Your task to perform on an android device: check out phone information Image 0: 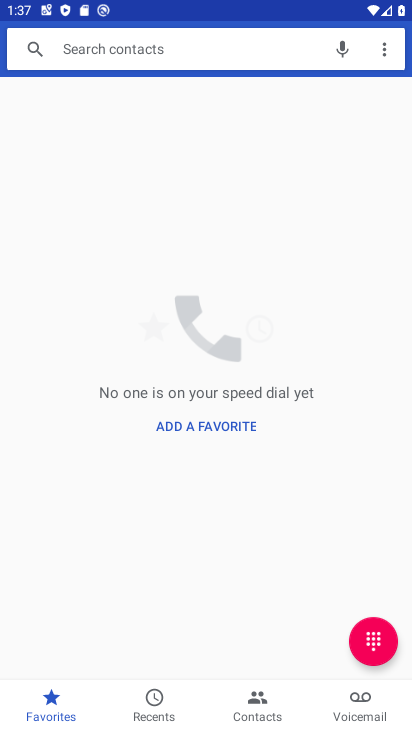
Step 0: press home button
Your task to perform on an android device: check out phone information Image 1: 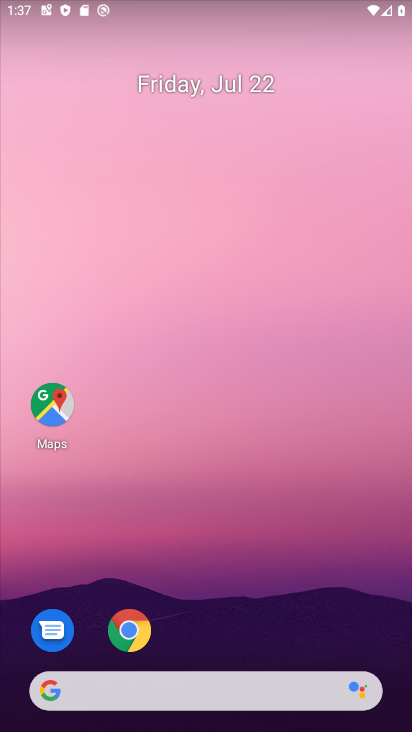
Step 1: drag from (191, 616) to (167, 30)
Your task to perform on an android device: check out phone information Image 2: 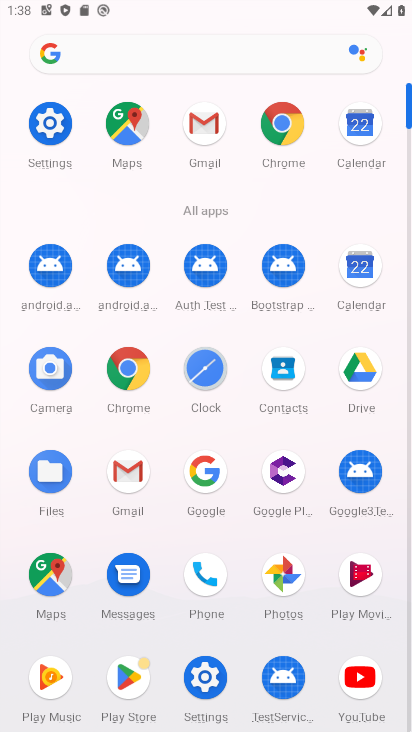
Step 2: click (211, 668)
Your task to perform on an android device: check out phone information Image 3: 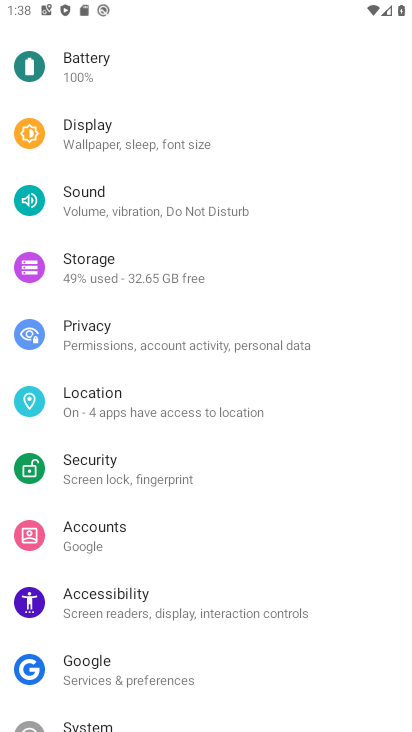
Step 3: drag from (211, 668) to (215, 160)
Your task to perform on an android device: check out phone information Image 4: 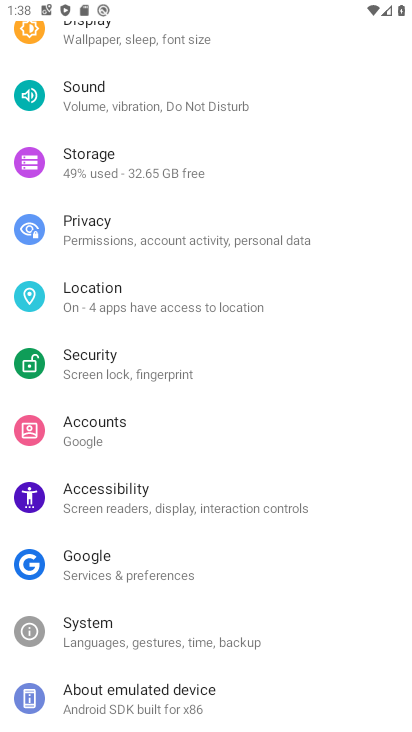
Step 4: click (104, 680)
Your task to perform on an android device: check out phone information Image 5: 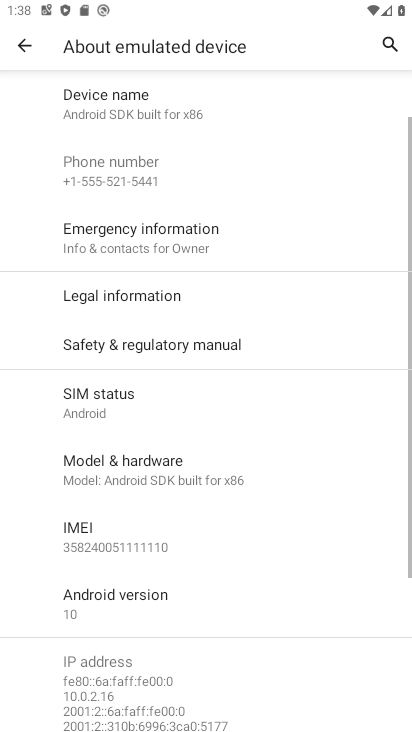
Step 5: task complete